Your task to perform on an android device: search for starred emails in the gmail app Image 0: 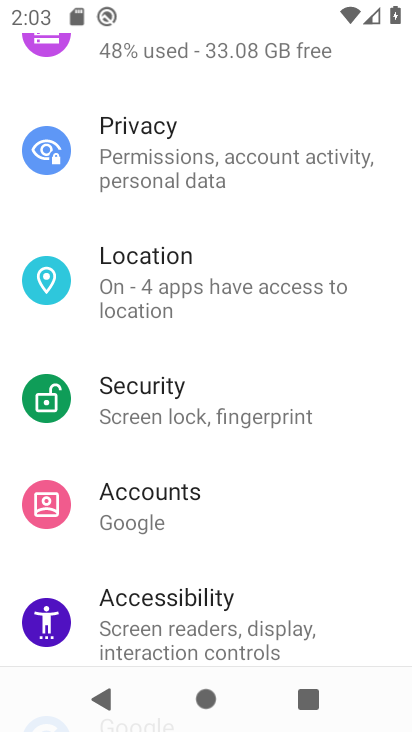
Step 0: press home button
Your task to perform on an android device: search for starred emails in the gmail app Image 1: 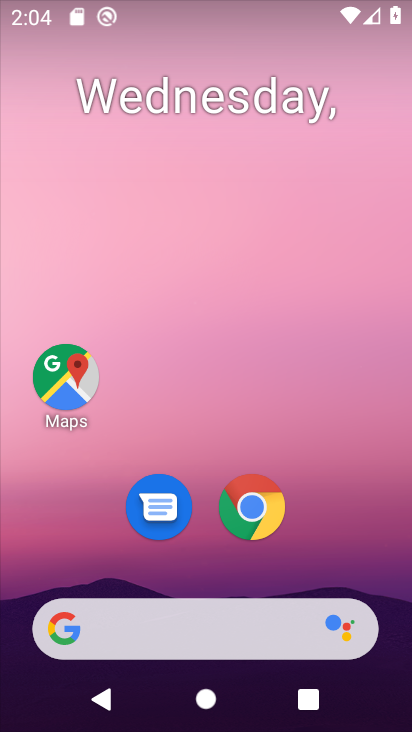
Step 1: drag from (81, 571) to (179, 189)
Your task to perform on an android device: search for starred emails in the gmail app Image 2: 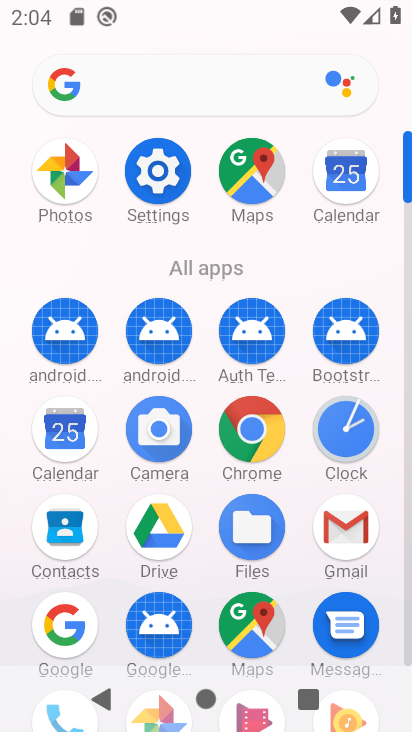
Step 2: click (331, 521)
Your task to perform on an android device: search for starred emails in the gmail app Image 3: 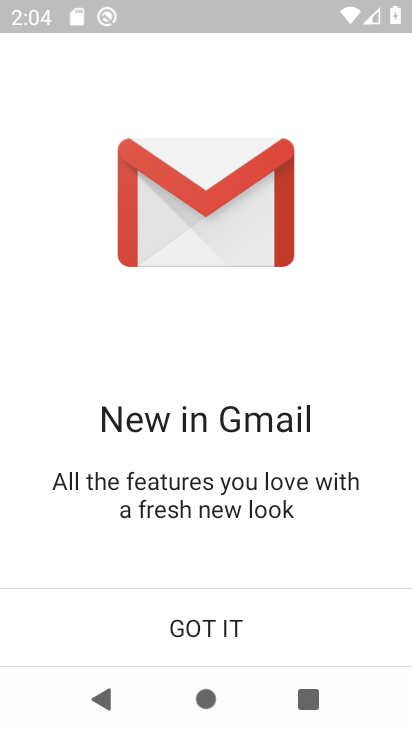
Step 3: click (236, 636)
Your task to perform on an android device: search for starred emails in the gmail app Image 4: 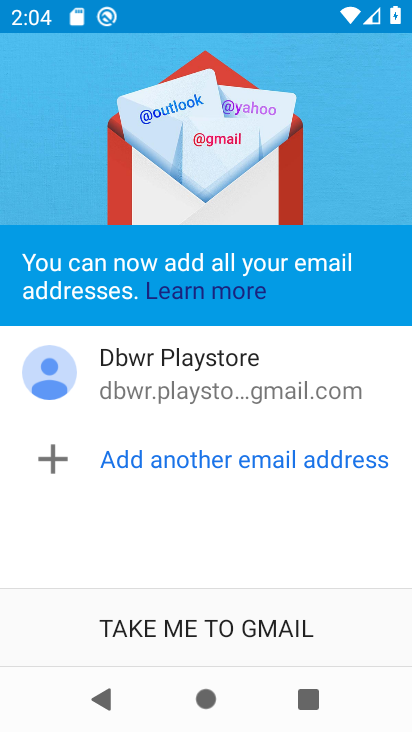
Step 4: click (198, 635)
Your task to perform on an android device: search for starred emails in the gmail app Image 5: 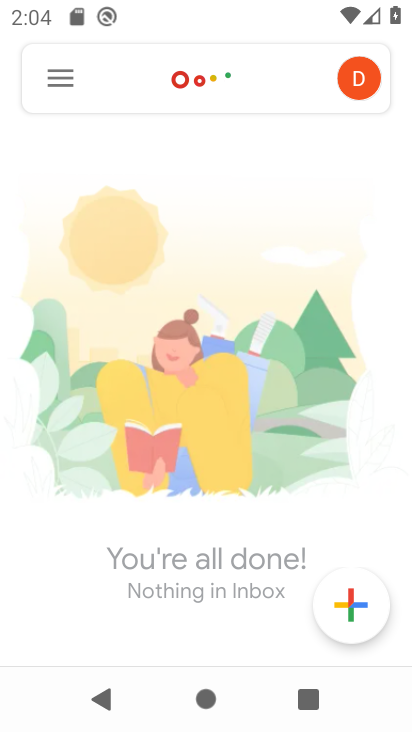
Step 5: click (73, 93)
Your task to perform on an android device: search for starred emails in the gmail app Image 6: 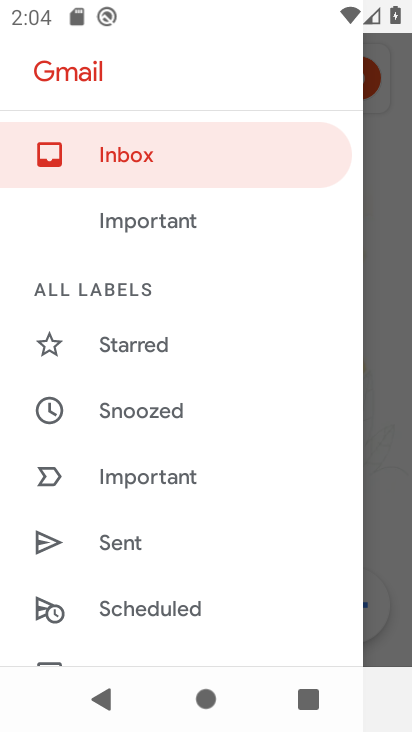
Step 6: click (163, 344)
Your task to perform on an android device: search for starred emails in the gmail app Image 7: 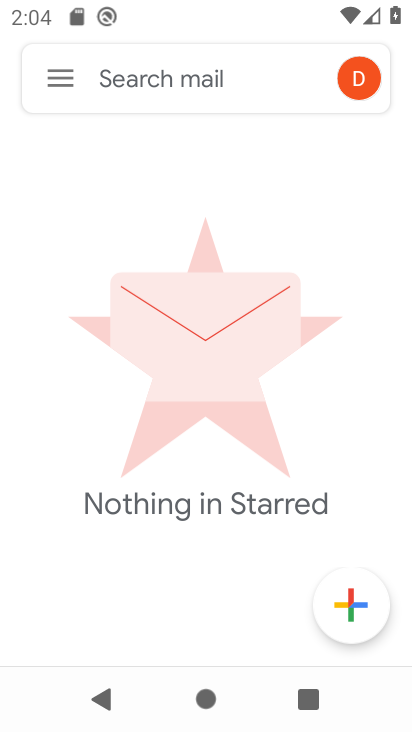
Step 7: task complete